Your task to perform on an android device: find photos in the google photos app Image 0: 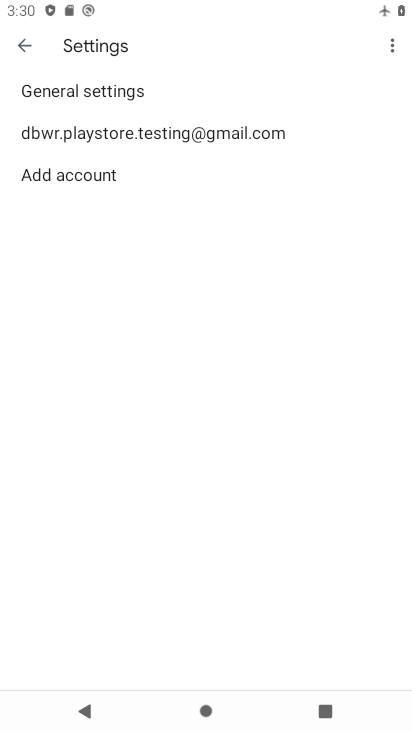
Step 0: press home button
Your task to perform on an android device: find photos in the google photos app Image 1: 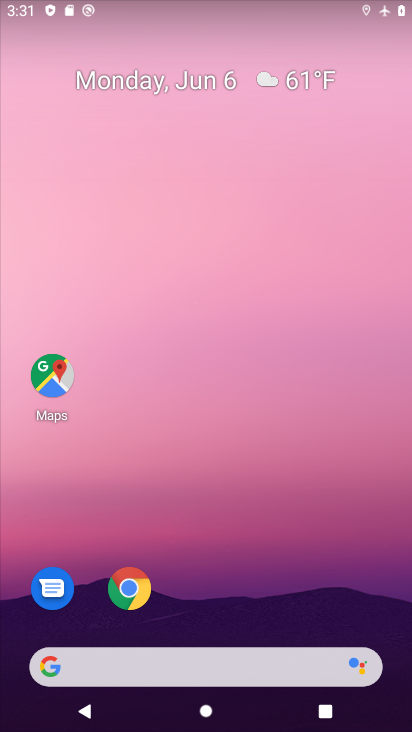
Step 1: drag from (243, 601) to (197, 261)
Your task to perform on an android device: find photos in the google photos app Image 2: 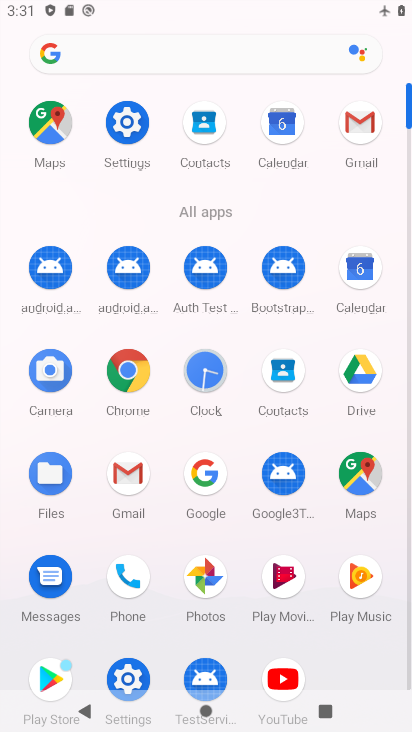
Step 2: click (198, 580)
Your task to perform on an android device: find photos in the google photos app Image 3: 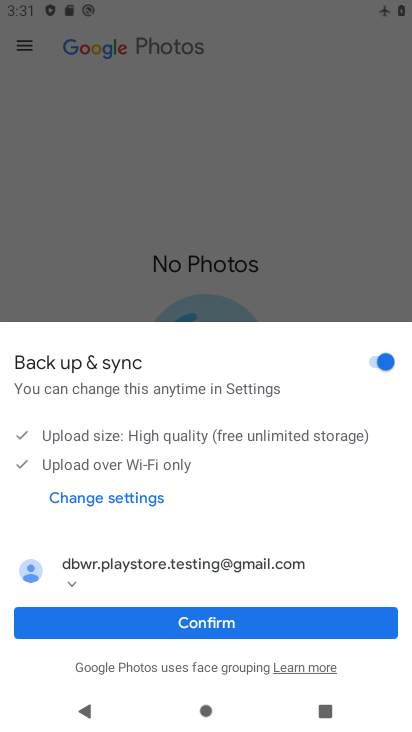
Step 3: click (219, 621)
Your task to perform on an android device: find photos in the google photos app Image 4: 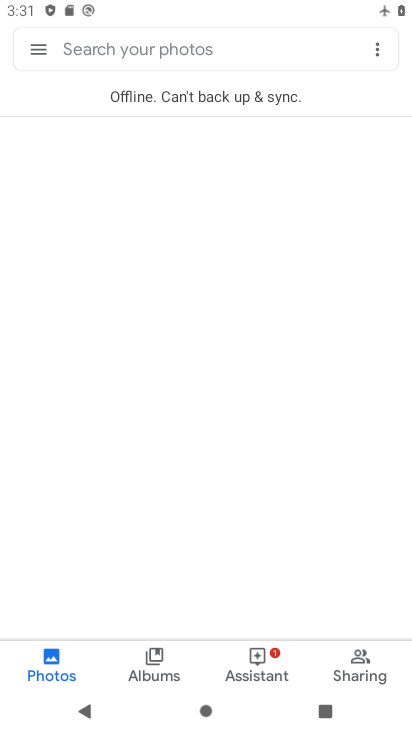
Step 4: task complete